Your task to perform on an android device: turn on sleep mode Image 0: 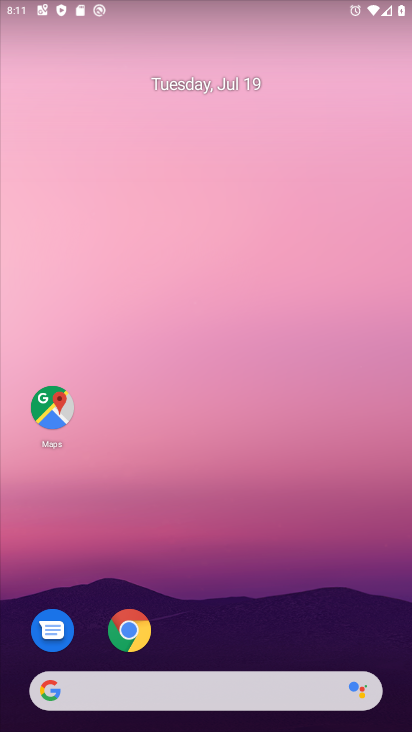
Step 0: drag from (185, 640) to (287, 71)
Your task to perform on an android device: turn on sleep mode Image 1: 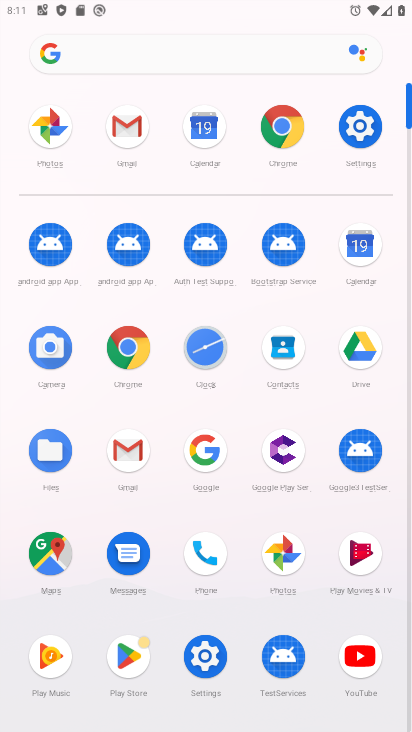
Step 1: click (364, 136)
Your task to perform on an android device: turn on sleep mode Image 2: 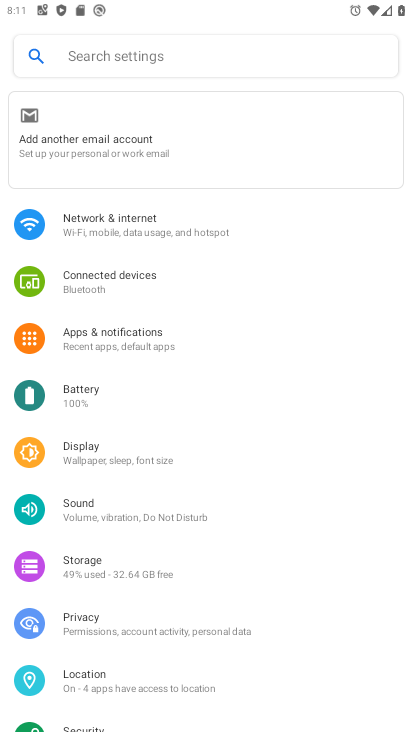
Step 2: task complete